Your task to perform on an android device: Go to ESPN.com Image 0: 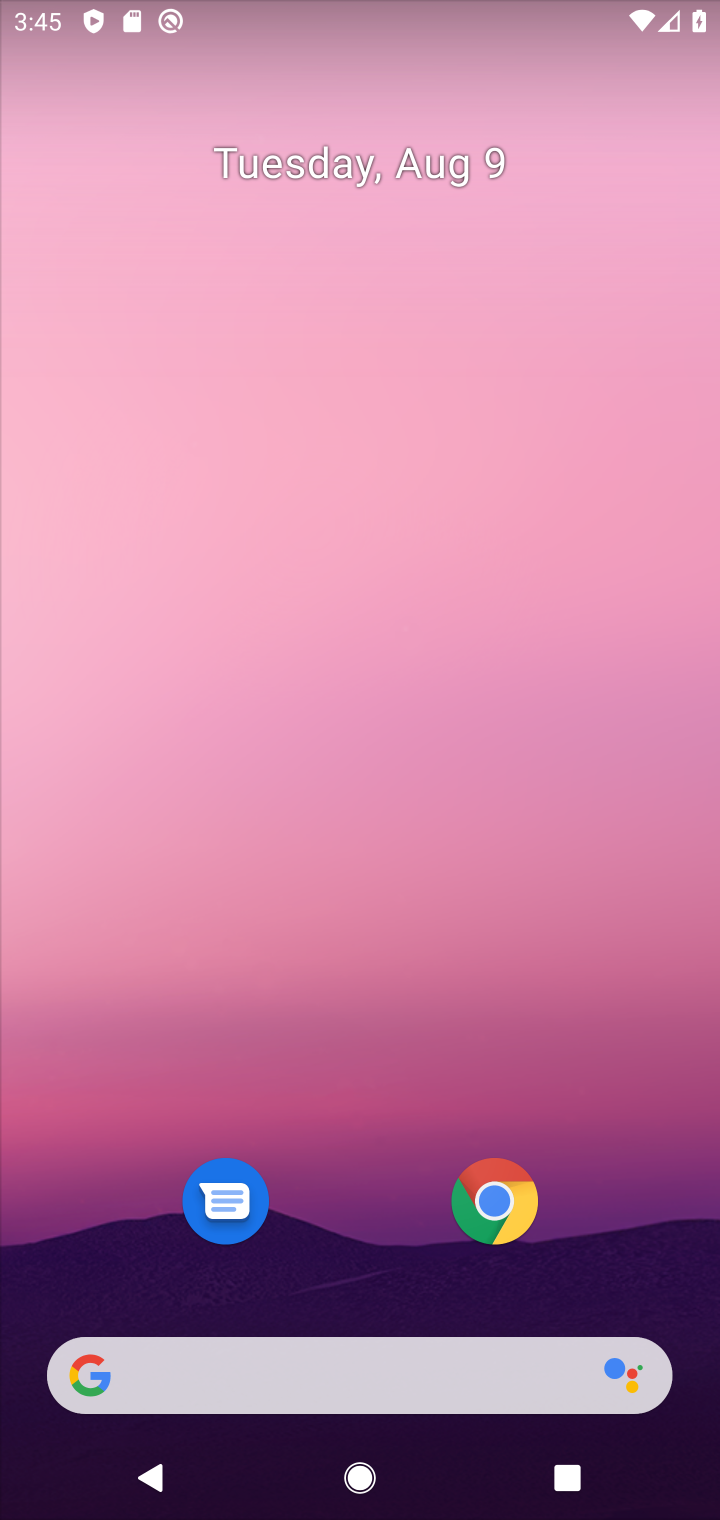
Step 0: click (497, 1205)
Your task to perform on an android device: Go to ESPN.com Image 1: 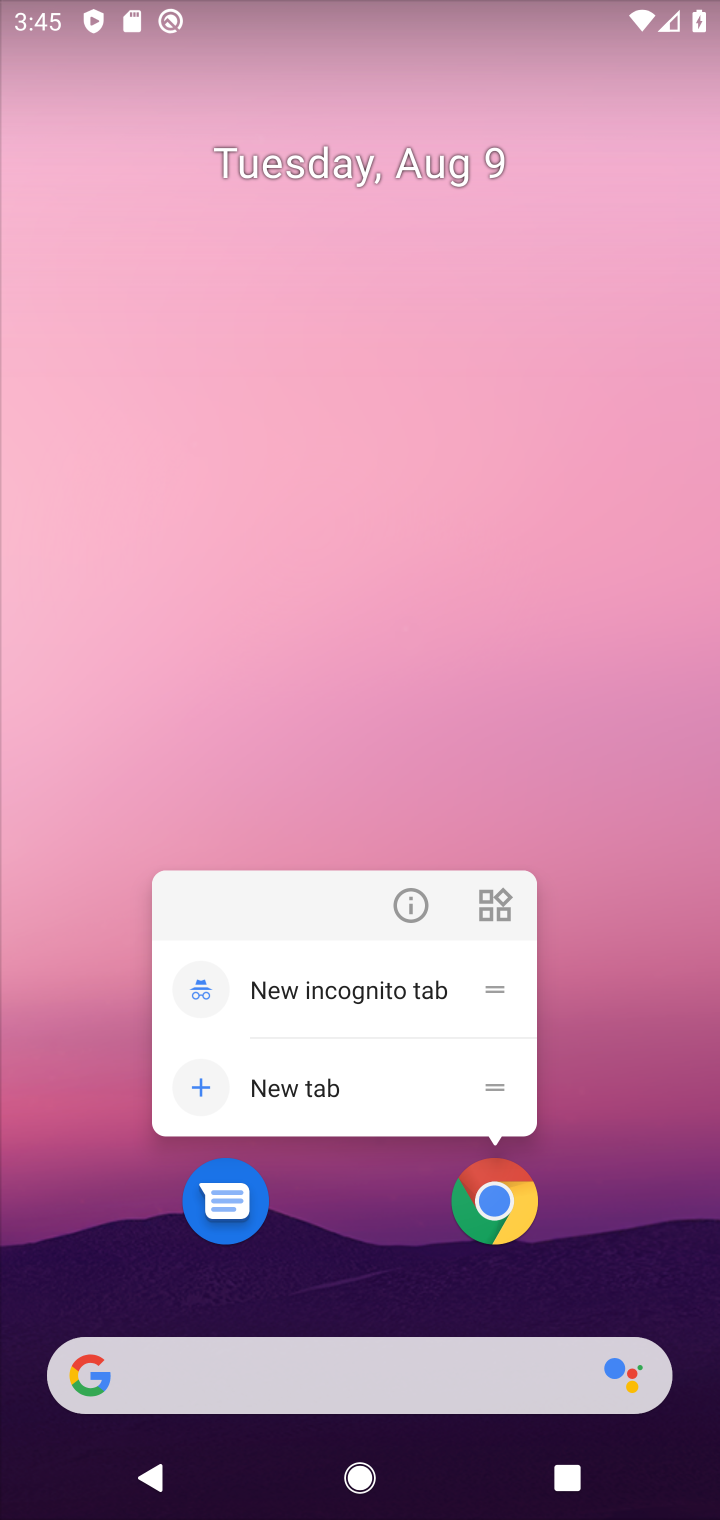
Step 1: click (497, 1205)
Your task to perform on an android device: Go to ESPN.com Image 2: 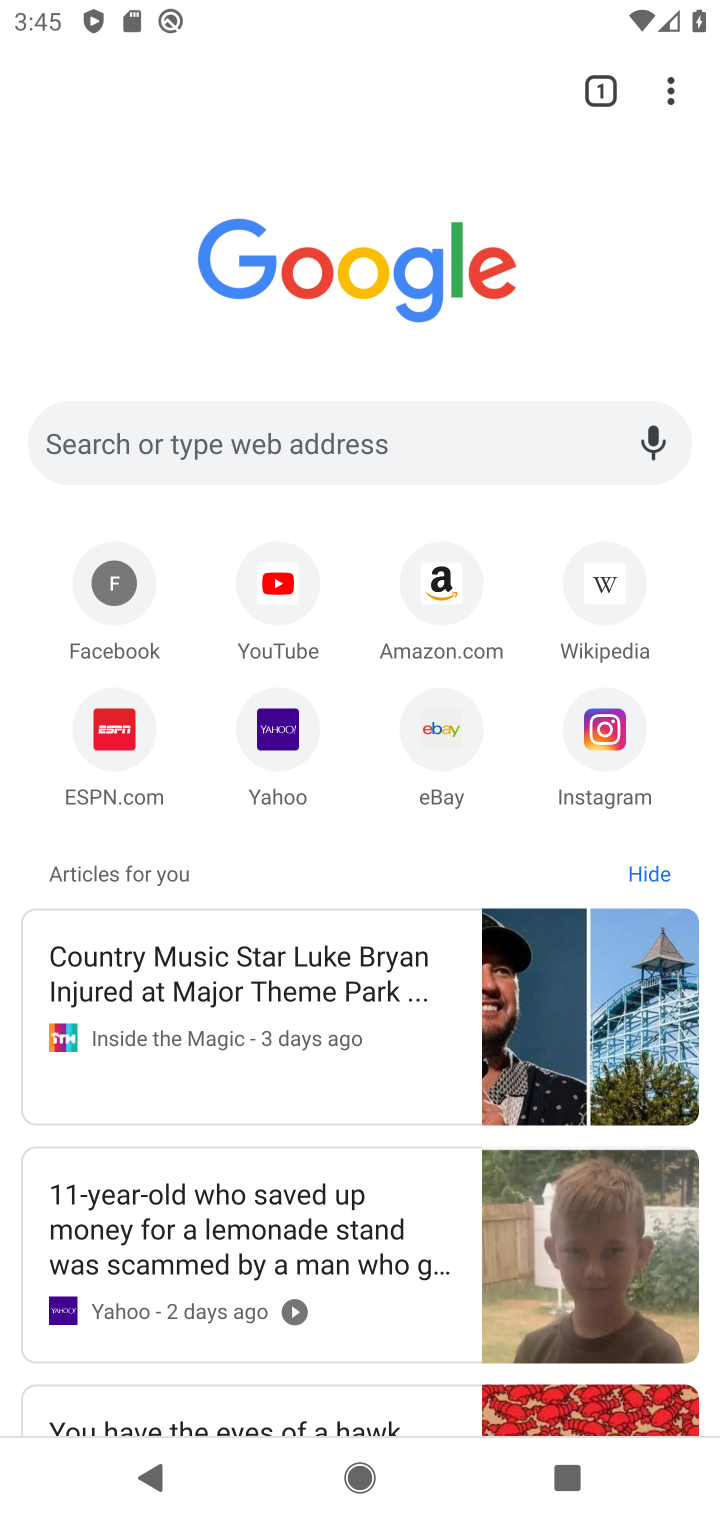
Step 2: click (361, 446)
Your task to perform on an android device: Go to ESPN.com Image 3: 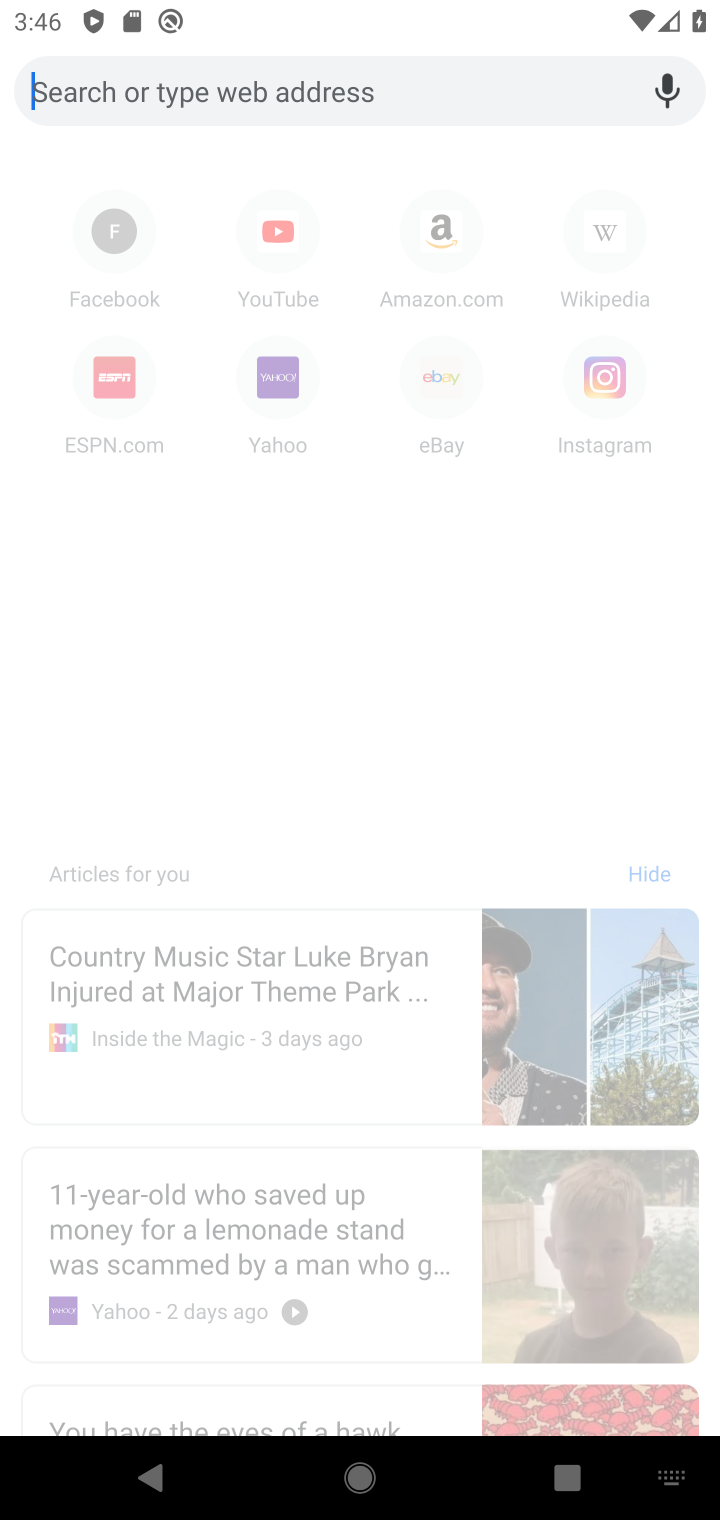
Step 3: type "ESPN.com"
Your task to perform on an android device: Go to ESPN.com Image 4: 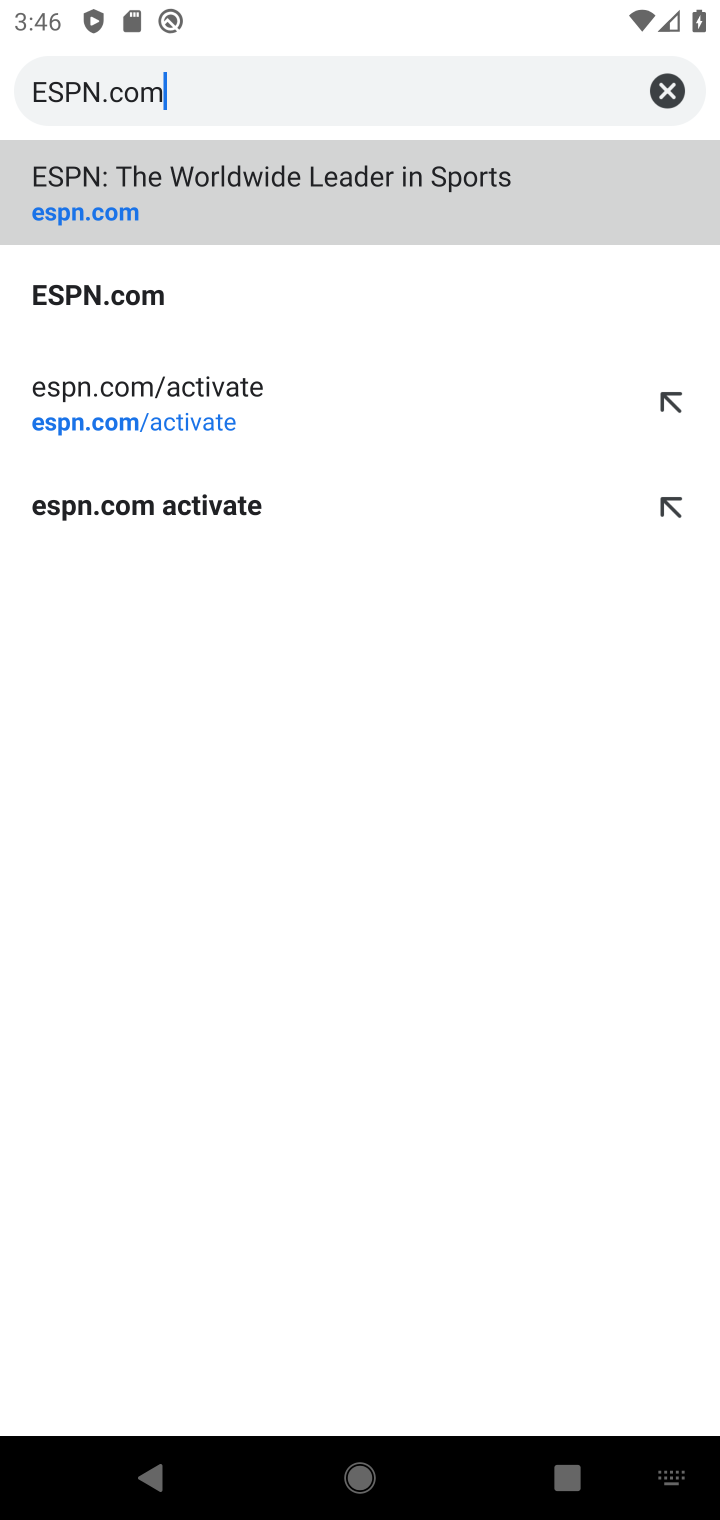
Step 4: click (58, 301)
Your task to perform on an android device: Go to ESPN.com Image 5: 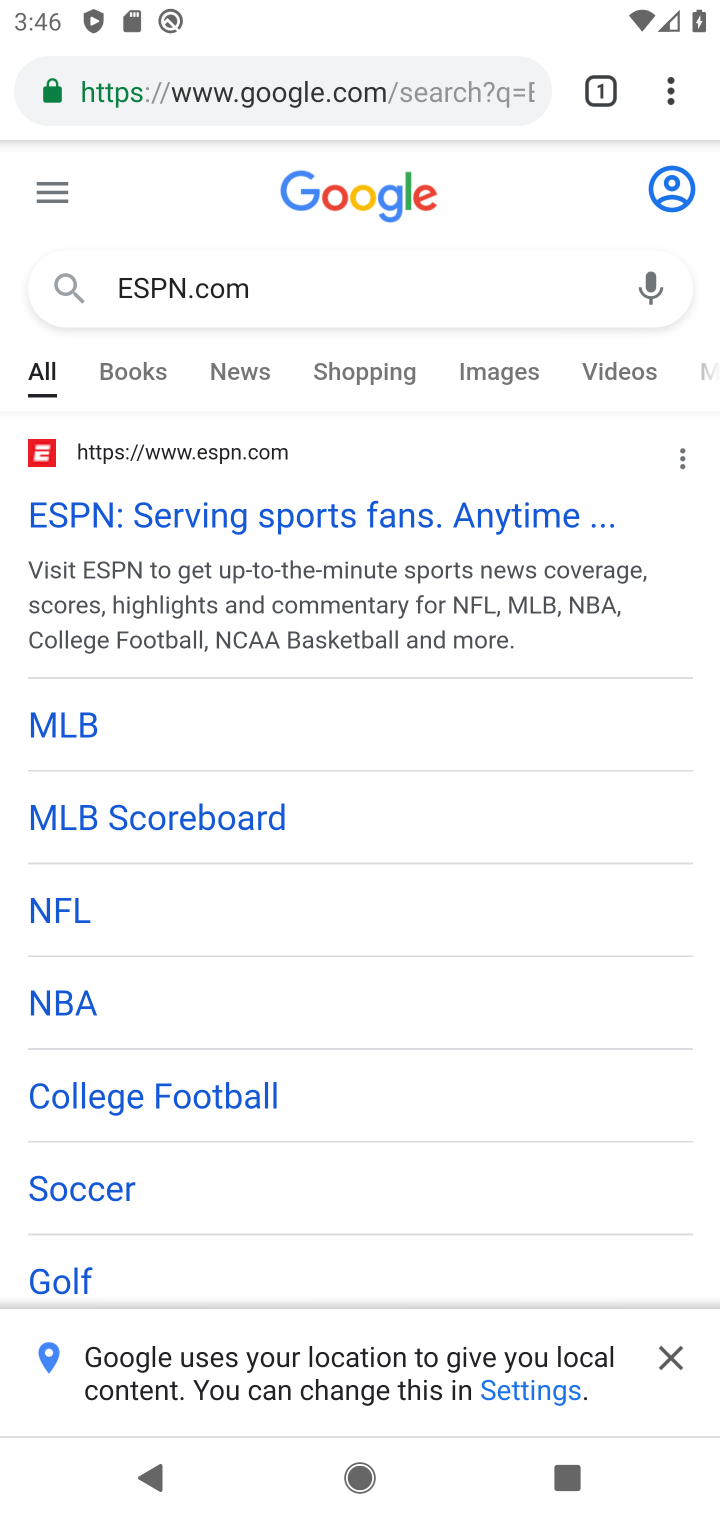
Step 5: click (381, 512)
Your task to perform on an android device: Go to ESPN.com Image 6: 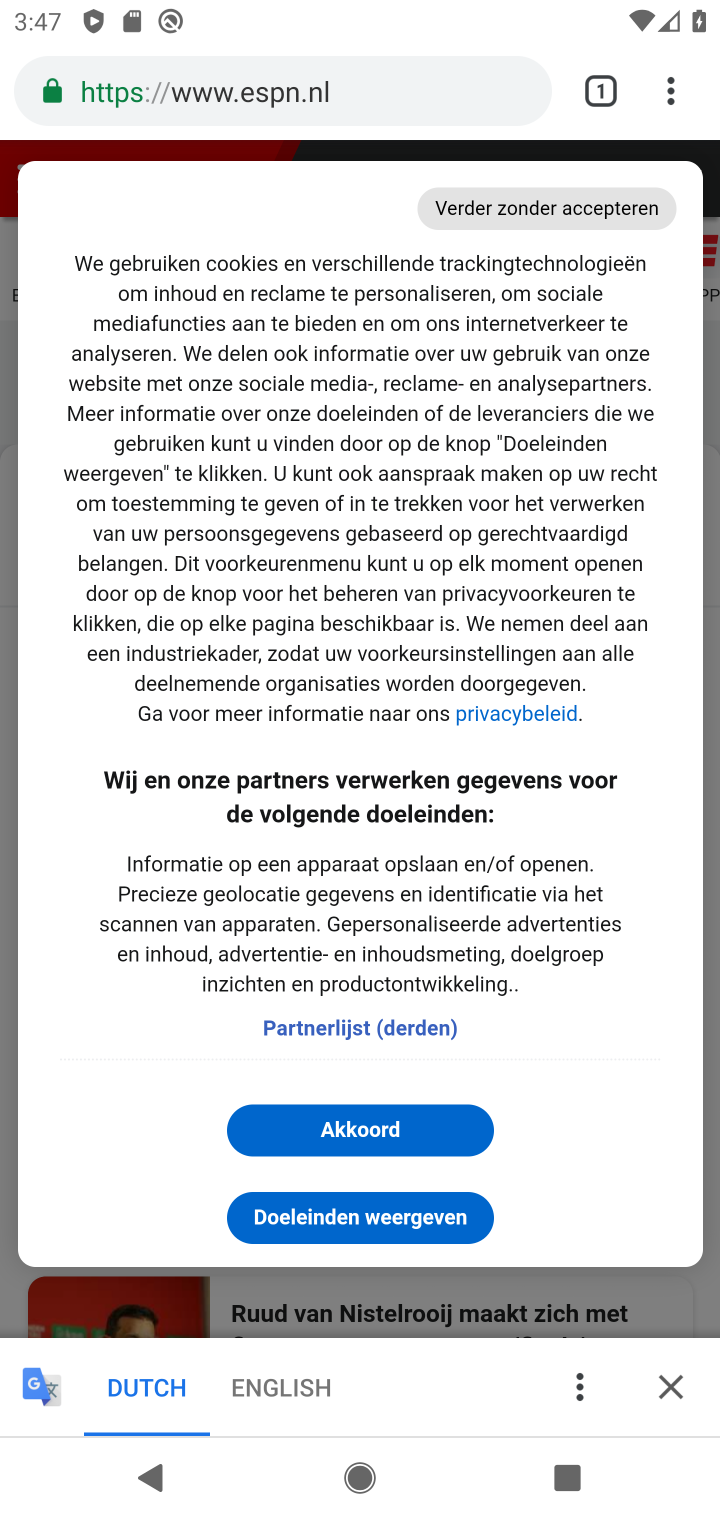
Step 6: click (378, 1133)
Your task to perform on an android device: Go to ESPN.com Image 7: 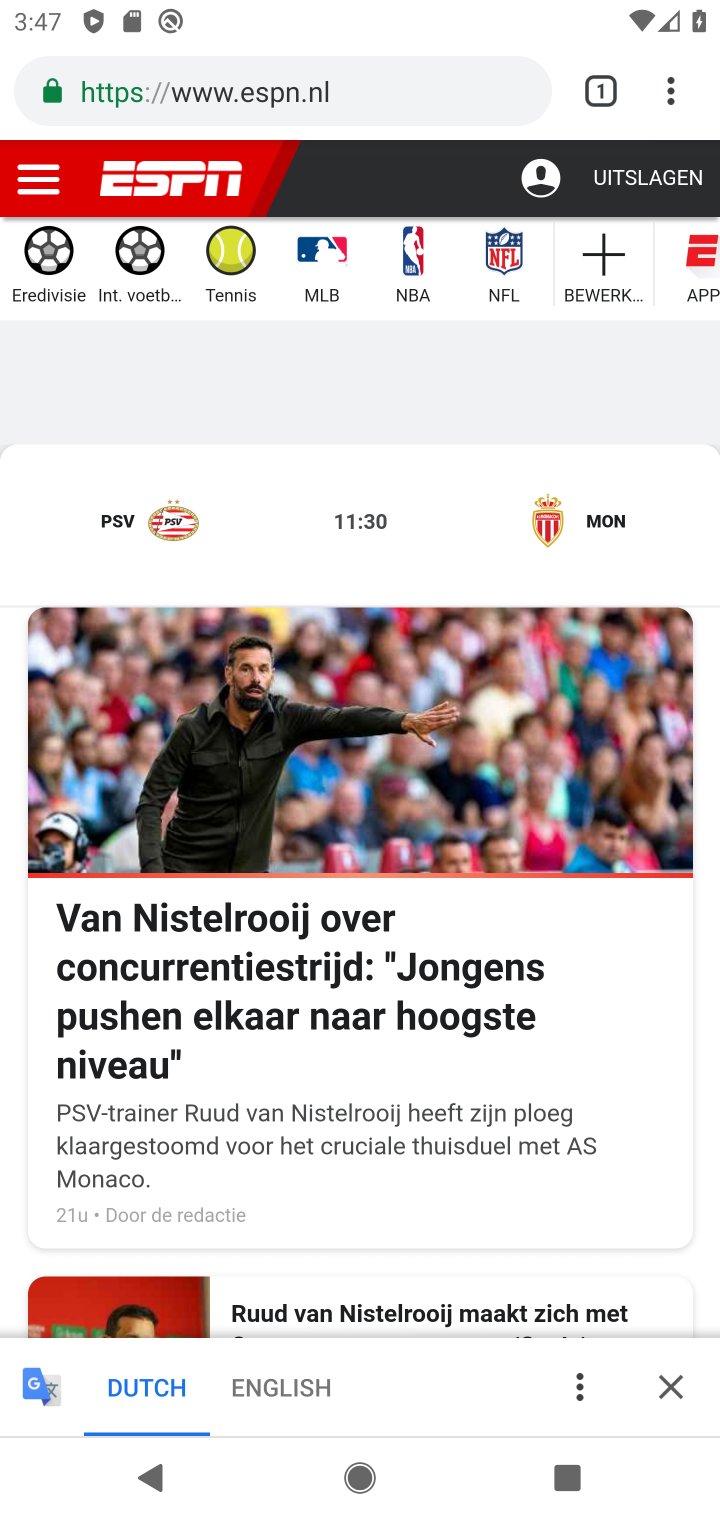
Step 7: task complete